Your task to perform on an android device: open app "DuckDuckGo Privacy Browser" Image 0: 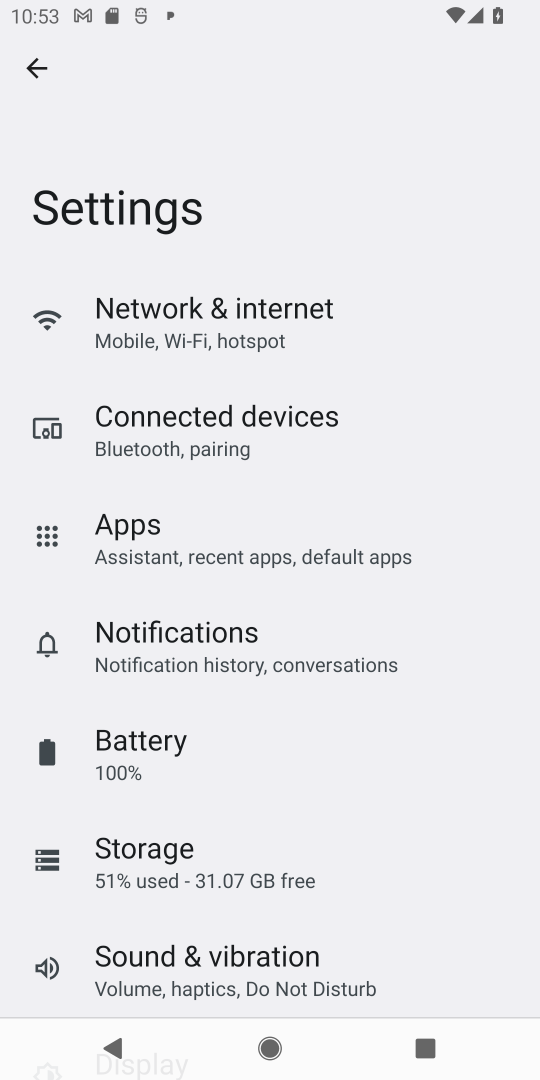
Step 0: press home button
Your task to perform on an android device: open app "DuckDuckGo Privacy Browser" Image 1: 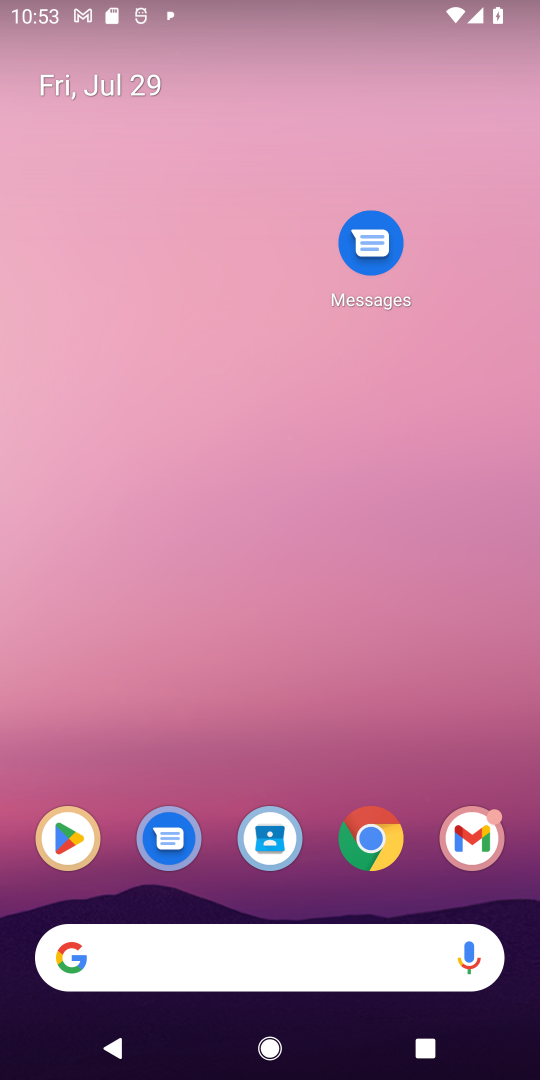
Step 1: click (70, 851)
Your task to perform on an android device: open app "DuckDuckGo Privacy Browser" Image 2: 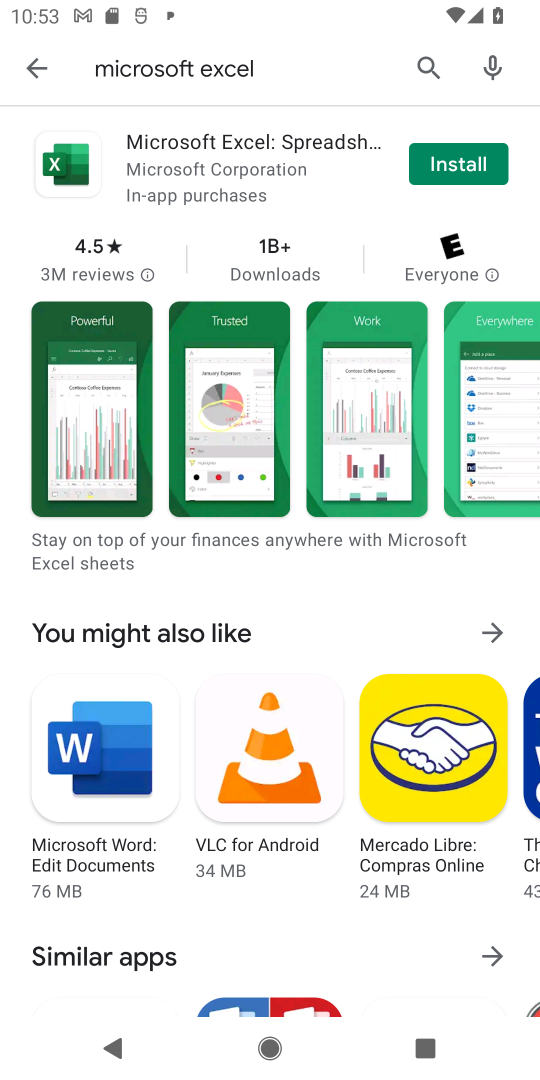
Step 2: click (237, 77)
Your task to perform on an android device: open app "DuckDuckGo Privacy Browser" Image 3: 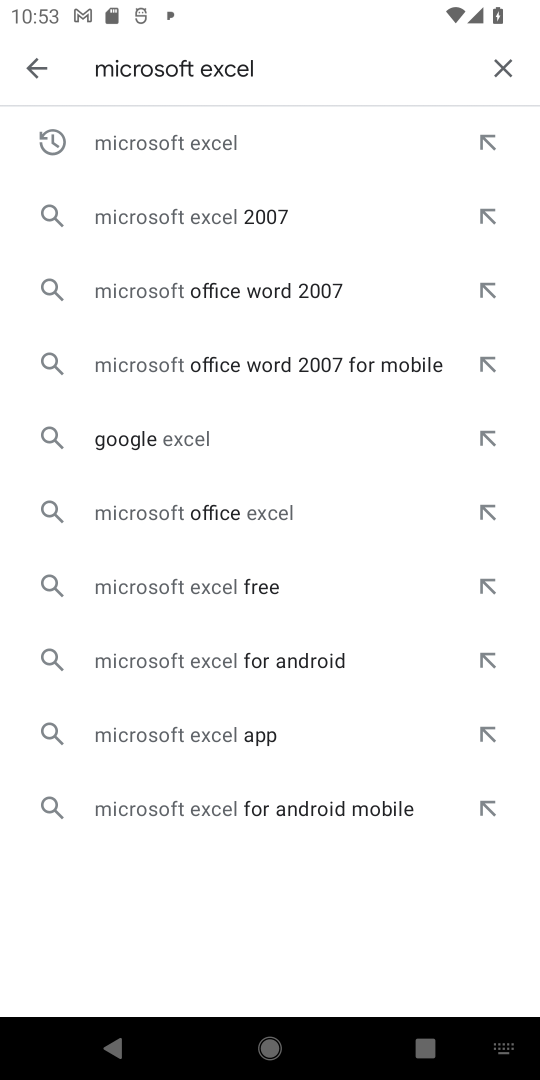
Step 3: click (514, 59)
Your task to perform on an android device: open app "DuckDuckGo Privacy Browser" Image 4: 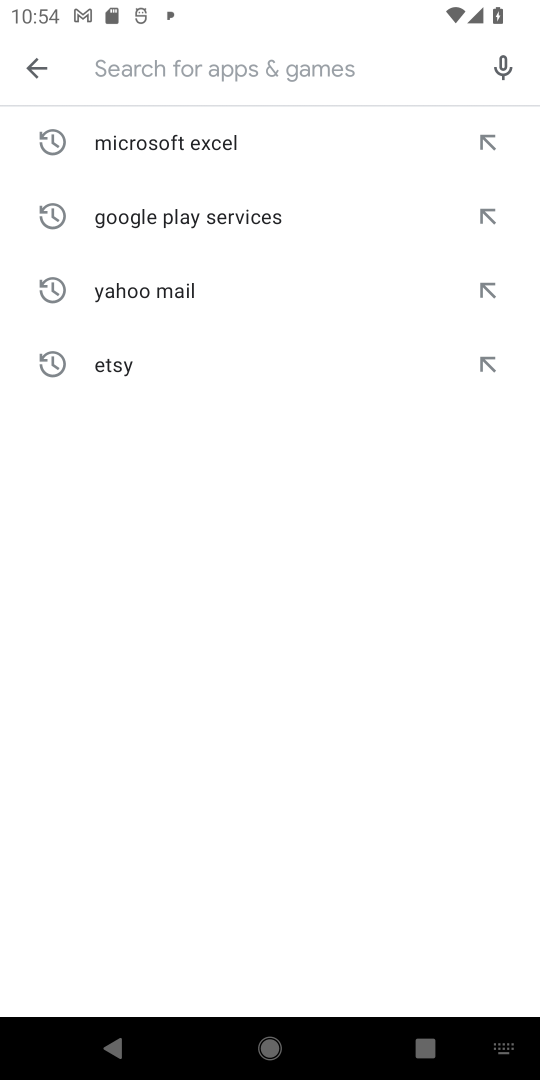
Step 4: type "Duckduckgo  "
Your task to perform on an android device: open app "DuckDuckGo Privacy Browser" Image 5: 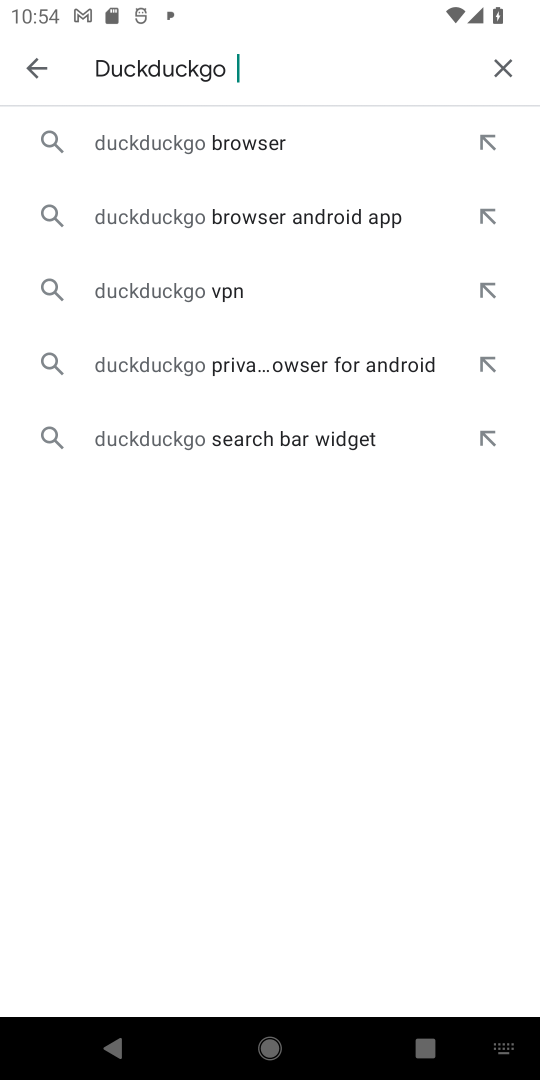
Step 5: click (137, 150)
Your task to perform on an android device: open app "DuckDuckGo Privacy Browser" Image 6: 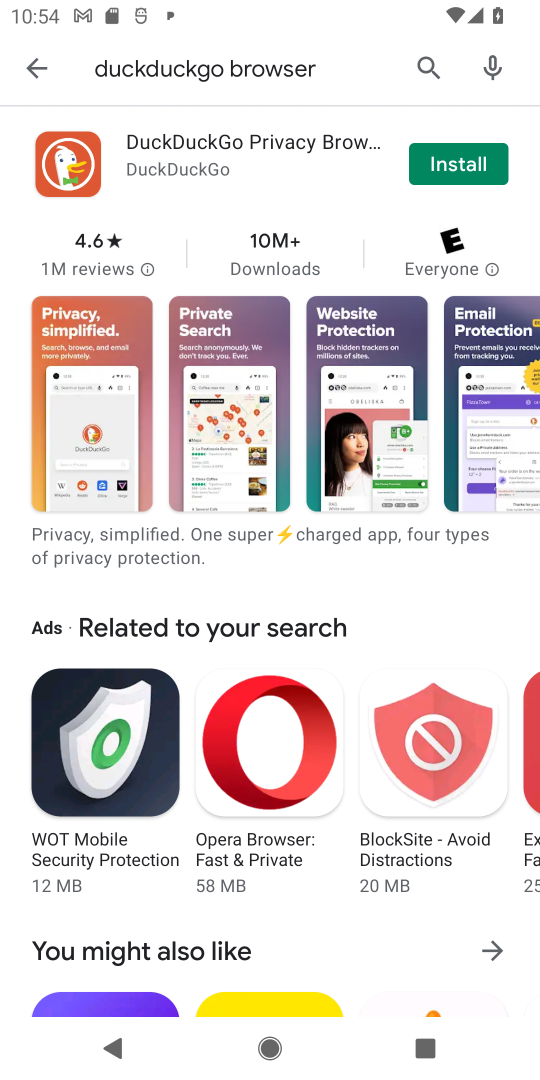
Step 6: task complete